Your task to perform on an android device: Search for vegetarian restaurants on Maps Image 0: 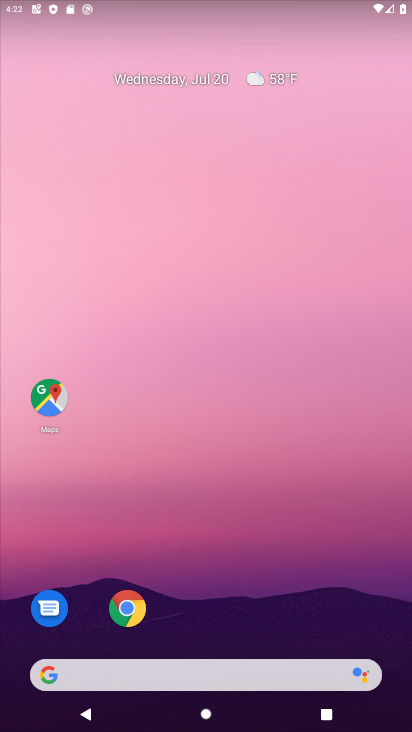
Step 0: click (50, 390)
Your task to perform on an android device: Search for vegetarian restaurants on Maps Image 1: 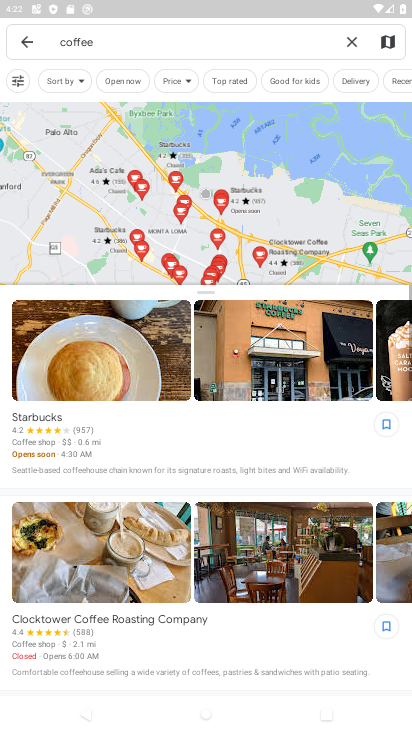
Step 1: click (23, 45)
Your task to perform on an android device: Search for vegetarian restaurants on Maps Image 2: 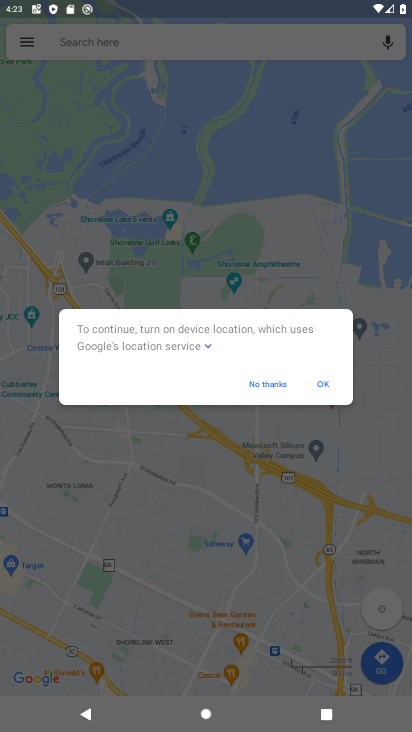
Step 2: click (319, 382)
Your task to perform on an android device: Search for vegetarian restaurants on Maps Image 3: 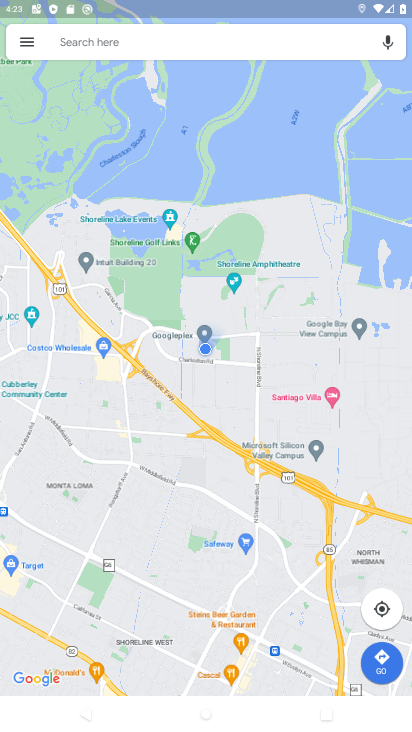
Step 3: click (93, 51)
Your task to perform on an android device: Search for vegetarian restaurants on Maps Image 4: 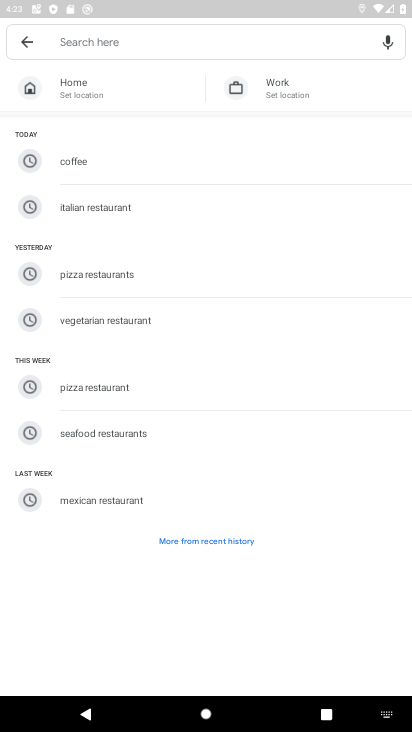
Step 4: click (96, 308)
Your task to perform on an android device: Search for vegetarian restaurants on Maps Image 5: 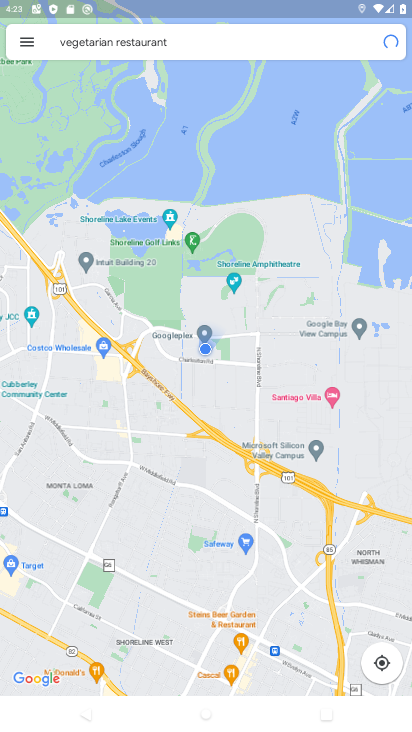
Step 5: task complete